Your task to perform on an android device: Open the calendar app, open the side menu, and click the "Day" option Image 0: 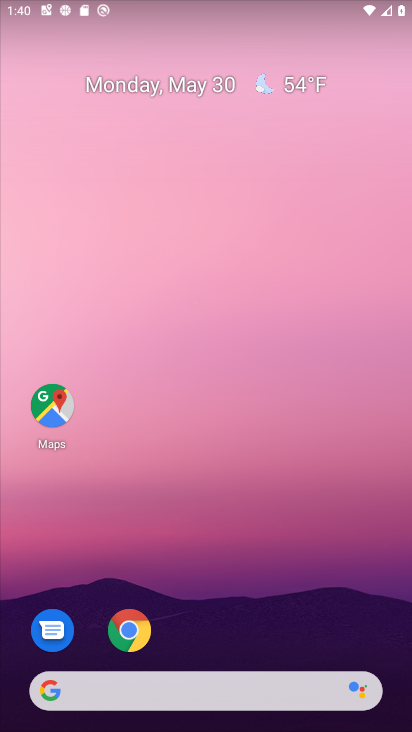
Step 0: press home button
Your task to perform on an android device: Open the calendar app, open the side menu, and click the "Day" option Image 1: 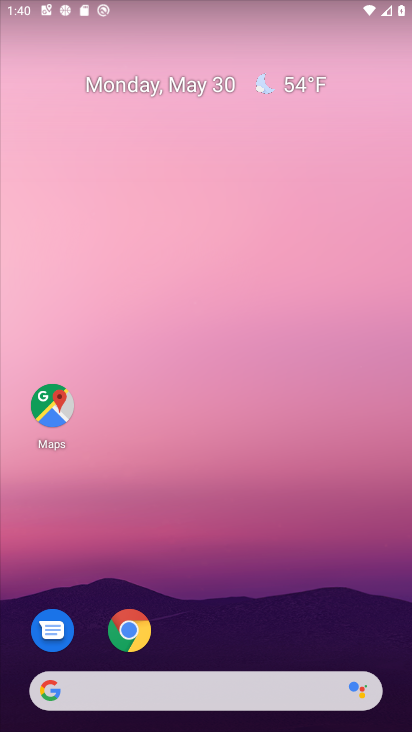
Step 1: drag from (221, 693) to (334, 165)
Your task to perform on an android device: Open the calendar app, open the side menu, and click the "Day" option Image 2: 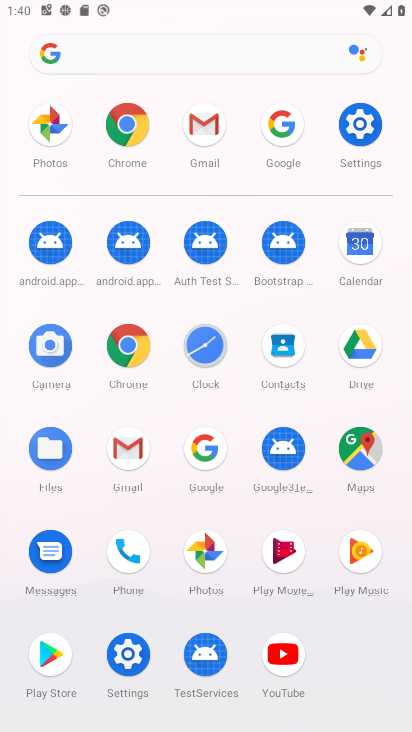
Step 2: click (364, 246)
Your task to perform on an android device: Open the calendar app, open the side menu, and click the "Day" option Image 3: 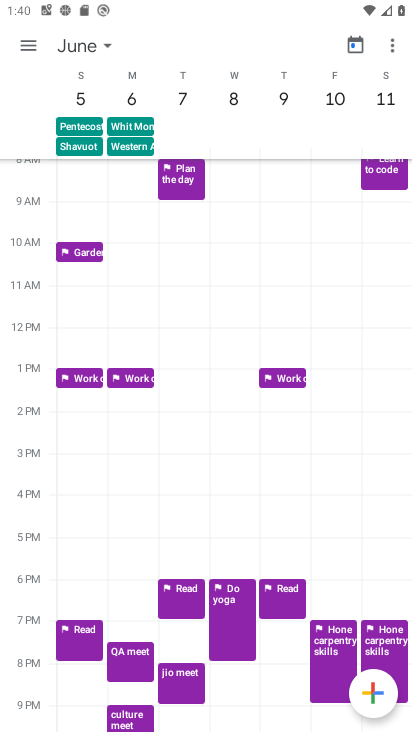
Step 3: click (24, 47)
Your task to perform on an android device: Open the calendar app, open the side menu, and click the "Day" option Image 4: 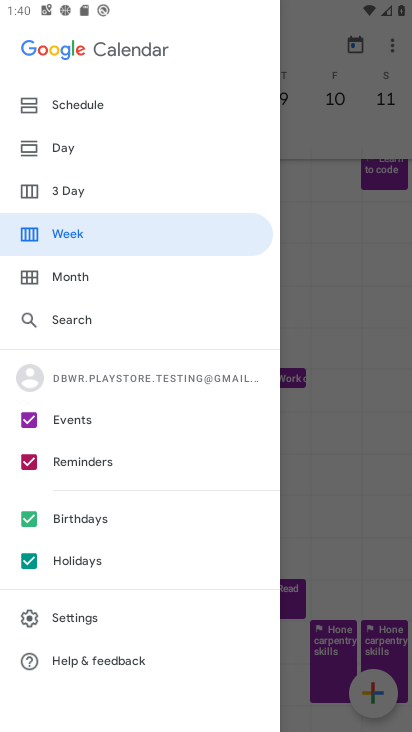
Step 4: click (55, 140)
Your task to perform on an android device: Open the calendar app, open the side menu, and click the "Day" option Image 5: 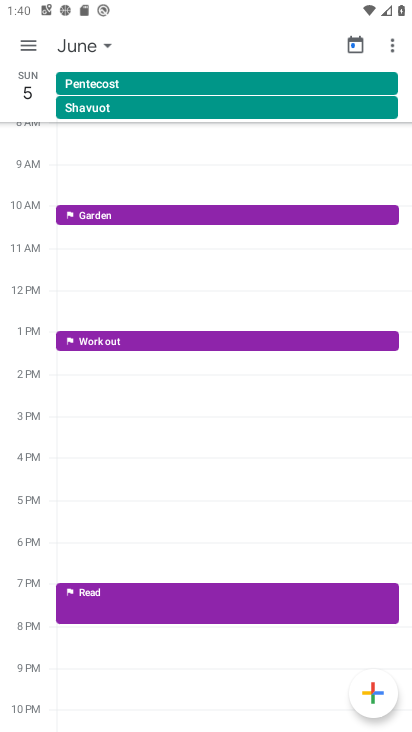
Step 5: task complete